Your task to perform on an android device: Go to accessibility settings Image 0: 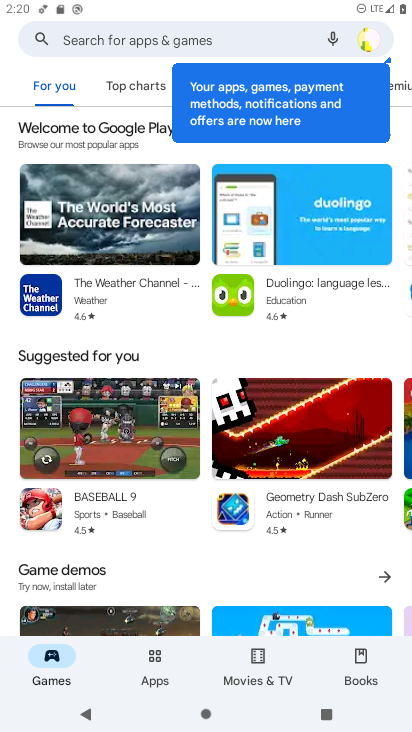
Step 0: press home button
Your task to perform on an android device: Go to accessibility settings Image 1: 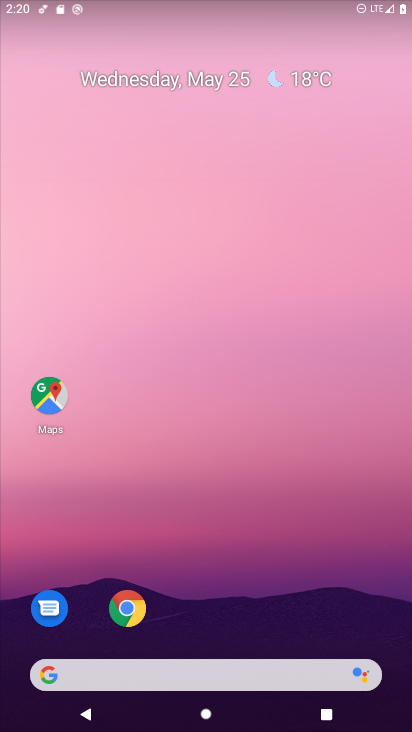
Step 1: drag from (371, 623) to (263, 128)
Your task to perform on an android device: Go to accessibility settings Image 2: 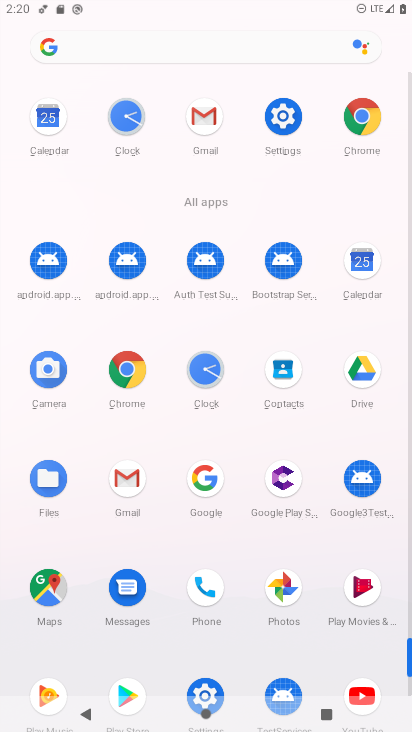
Step 2: click (205, 693)
Your task to perform on an android device: Go to accessibility settings Image 3: 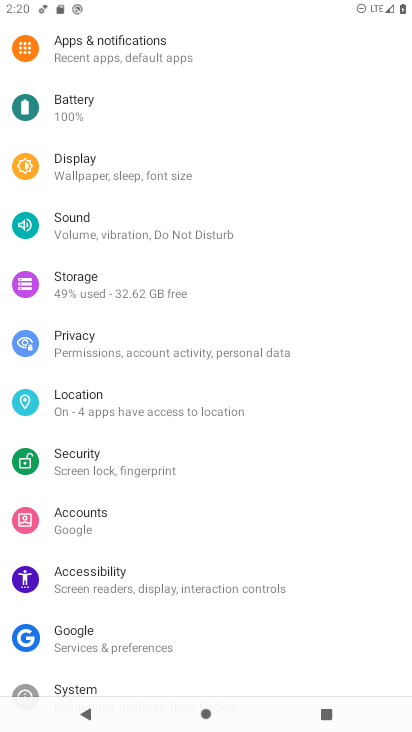
Step 3: drag from (302, 549) to (293, 355)
Your task to perform on an android device: Go to accessibility settings Image 4: 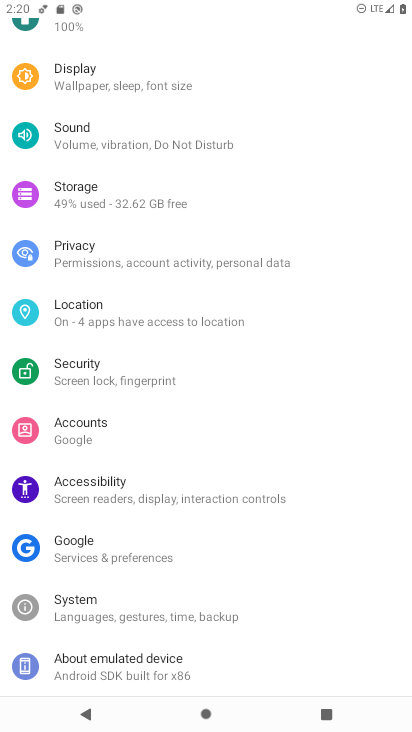
Step 4: click (109, 484)
Your task to perform on an android device: Go to accessibility settings Image 5: 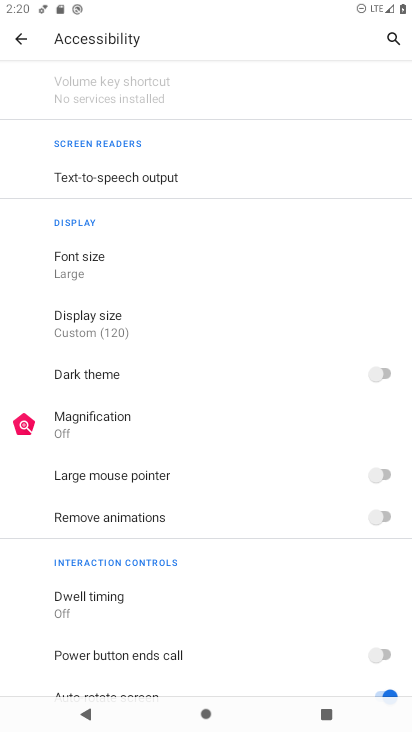
Step 5: task complete